Your task to perform on an android device: turn on wifi Image 0: 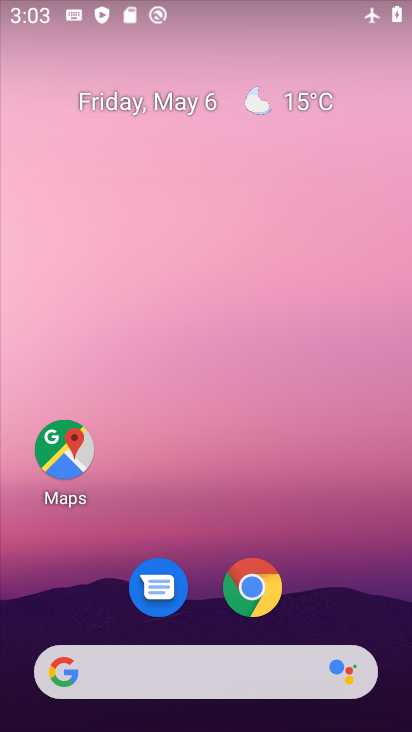
Step 0: drag from (194, 607) to (184, 108)
Your task to perform on an android device: turn on wifi Image 1: 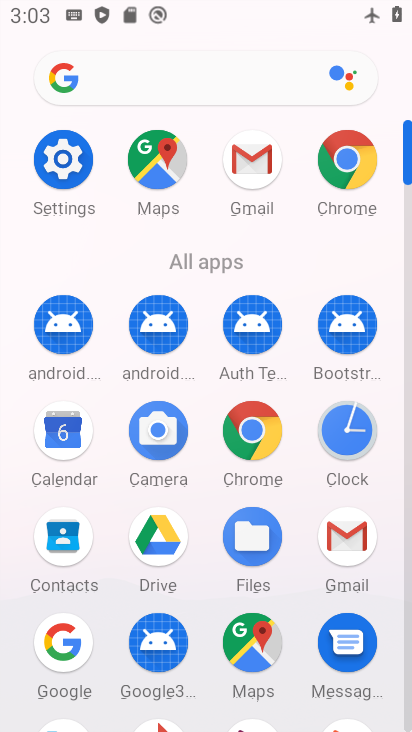
Step 1: click (60, 154)
Your task to perform on an android device: turn on wifi Image 2: 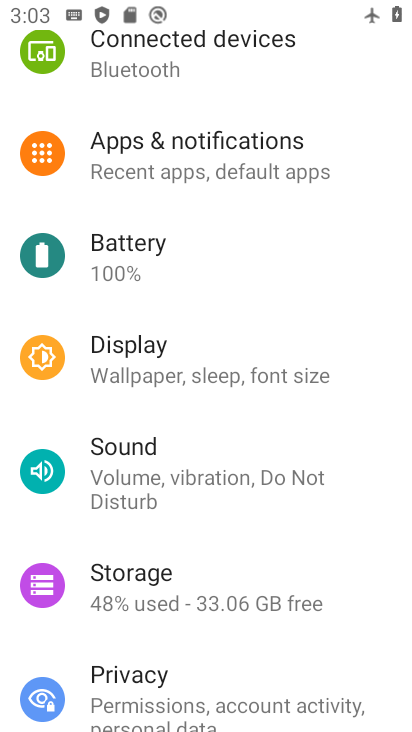
Step 2: drag from (213, 100) to (217, 731)
Your task to perform on an android device: turn on wifi Image 3: 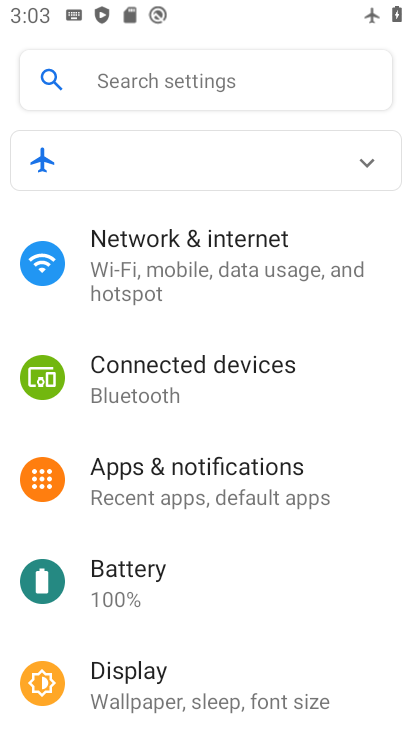
Step 3: click (193, 268)
Your task to perform on an android device: turn on wifi Image 4: 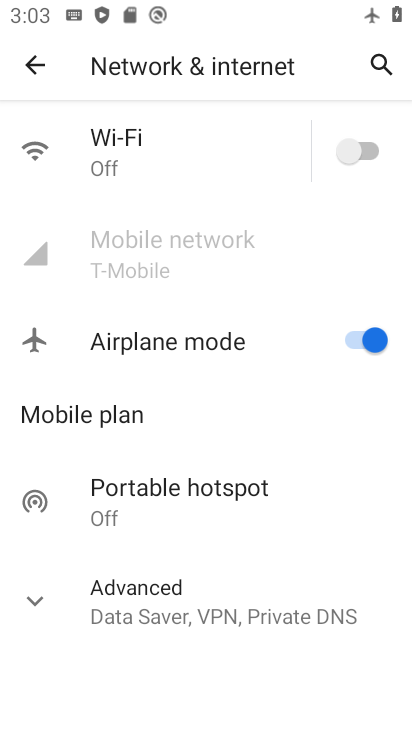
Step 4: click (130, 143)
Your task to perform on an android device: turn on wifi Image 5: 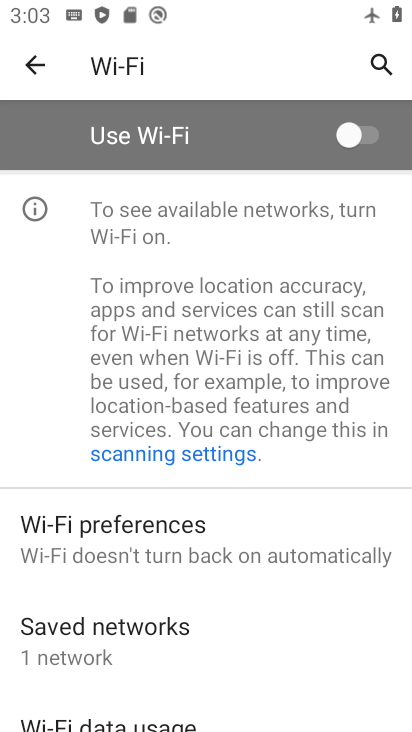
Step 5: click (359, 123)
Your task to perform on an android device: turn on wifi Image 6: 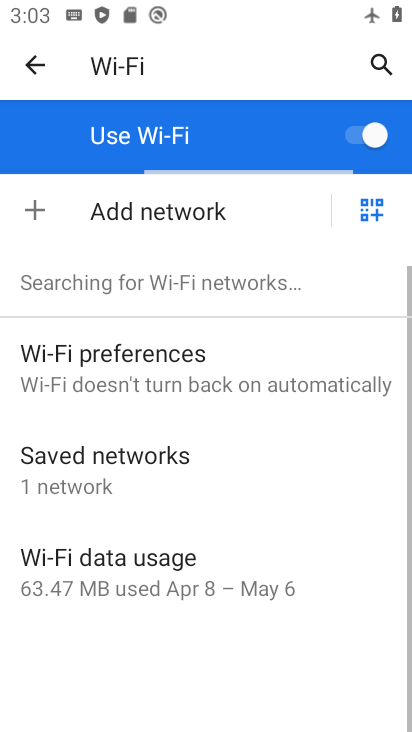
Step 6: task complete